Your task to perform on an android device: Open battery settings Image 0: 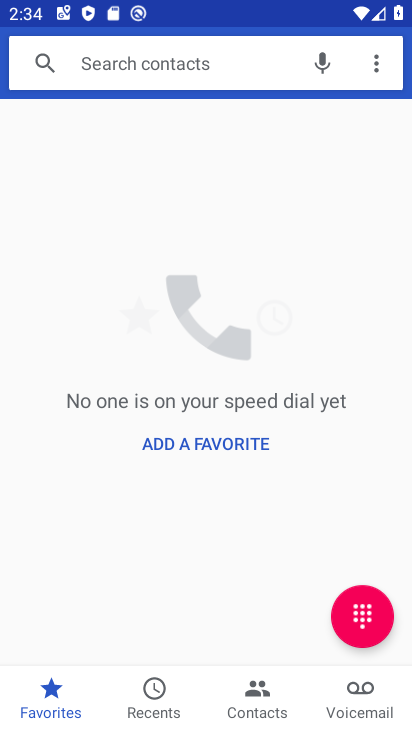
Step 0: press back button
Your task to perform on an android device: Open battery settings Image 1: 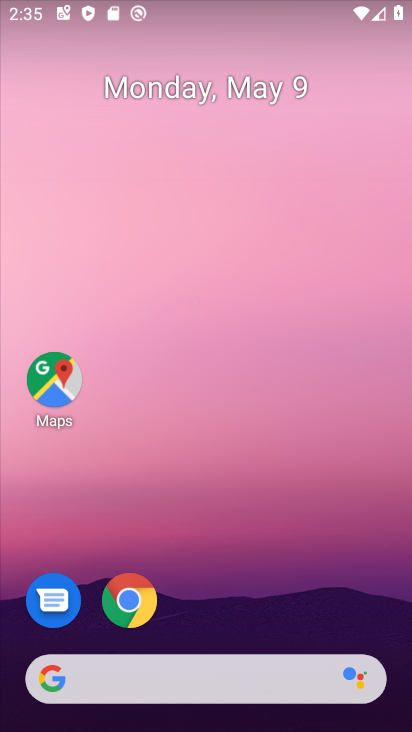
Step 1: drag from (187, 578) to (304, 17)
Your task to perform on an android device: Open battery settings Image 2: 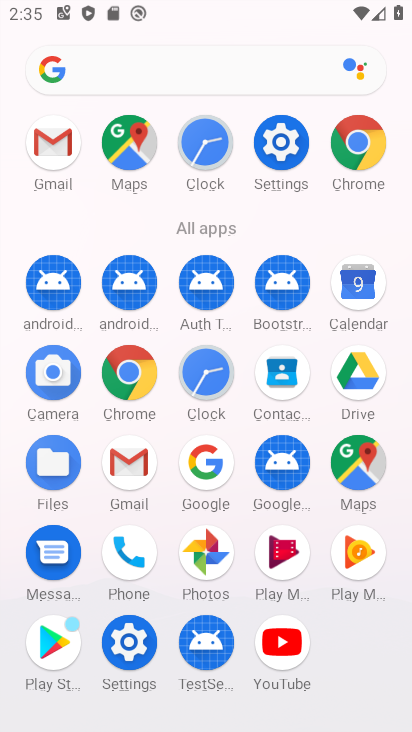
Step 2: click (274, 141)
Your task to perform on an android device: Open battery settings Image 3: 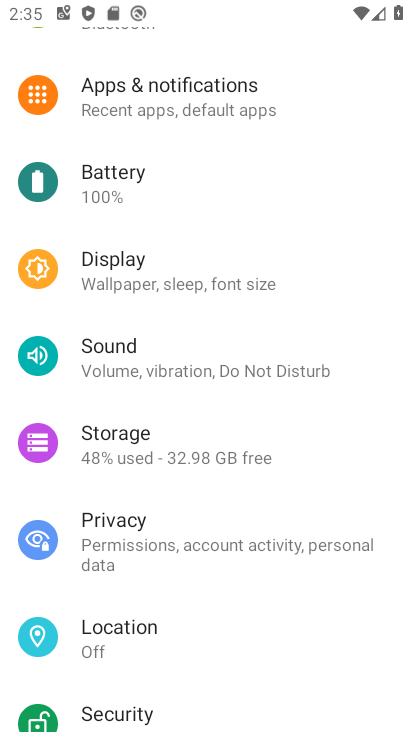
Step 3: click (147, 182)
Your task to perform on an android device: Open battery settings Image 4: 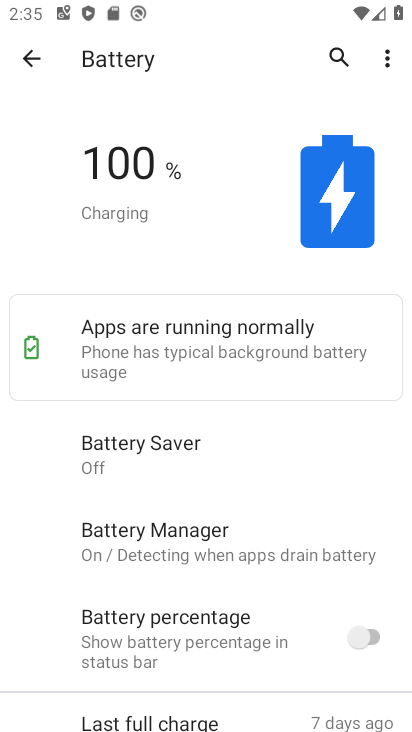
Step 4: task complete